Your task to perform on an android device: Is it going to rain today? Image 0: 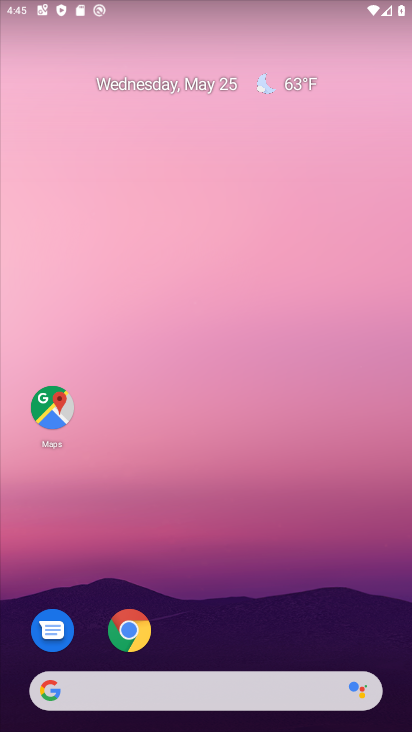
Step 0: click (268, 85)
Your task to perform on an android device: Is it going to rain today? Image 1: 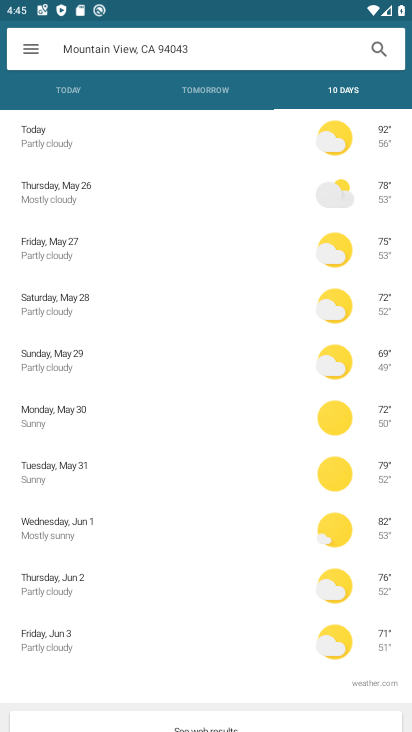
Step 1: click (62, 89)
Your task to perform on an android device: Is it going to rain today? Image 2: 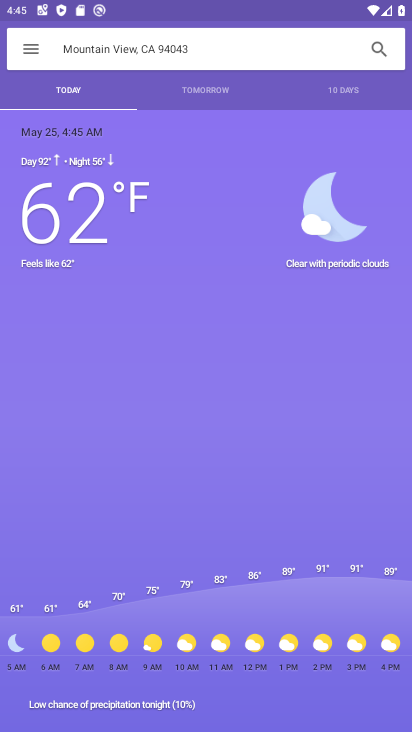
Step 2: task complete